Your task to perform on an android device: Empty the shopping cart on walmart.com. Add "jbl flip 4" to the cart on walmart.com, then select checkout. Image 0: 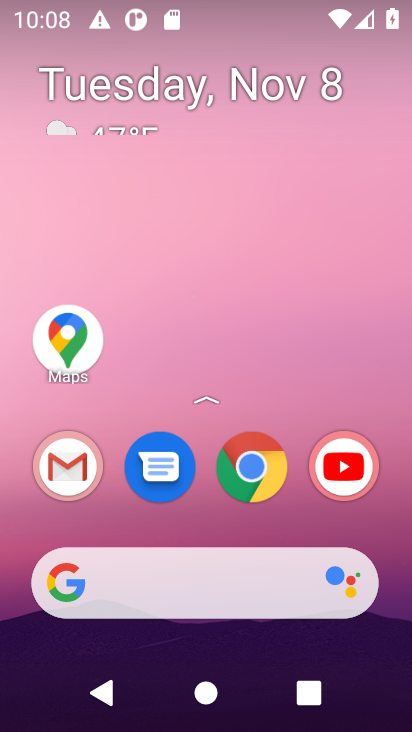
Step 0: click (272, 603)
Your task to perform on an android device: Empty the shopping cart on walmart.com. Add "jbl flip 4" to the cart on walmart.com, then select checkout. Image 1: 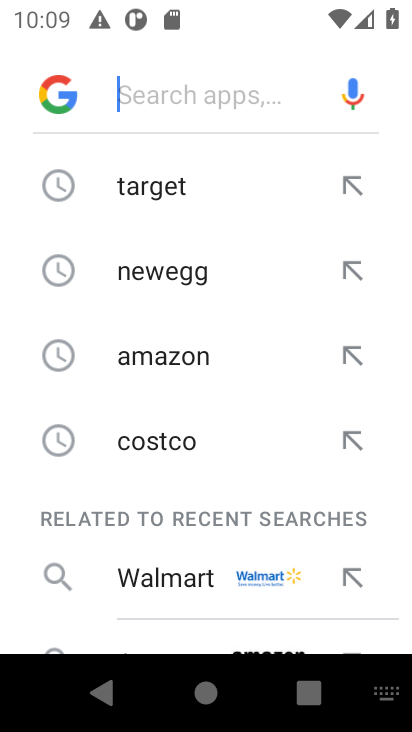
Step 1: click (243, 610)
Your task to perform on an android device: Empty the shopping cart on walmart.com. Add "jbl flip 4" to the cart on walmart.com, then select checkout. Image 2: 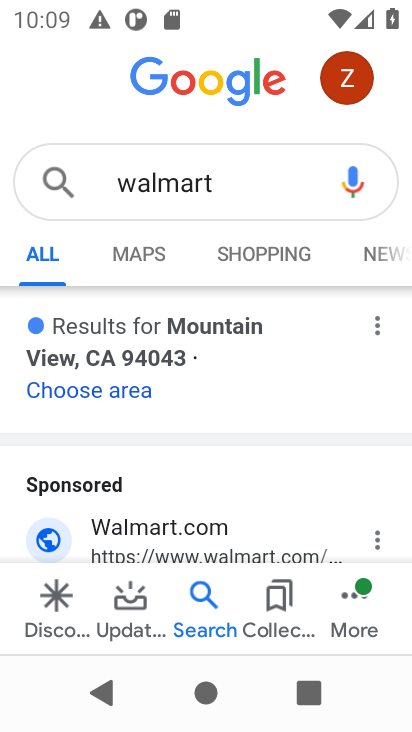
Step 2: click (101, 514)
Your task to perform on an android device: Empty the shopping cart on walmart.com. Add "jbl flip 4" to the cart on walmart.com, then select checkout. Image 3: 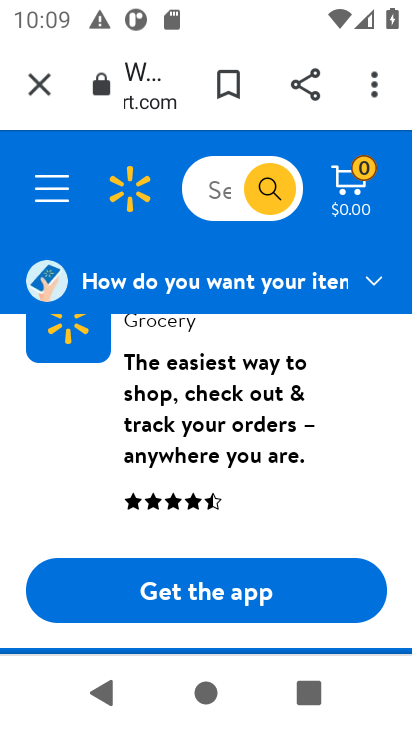
Step 3: task complete